Your task to perform on an android device: turn off wifi Image 0: 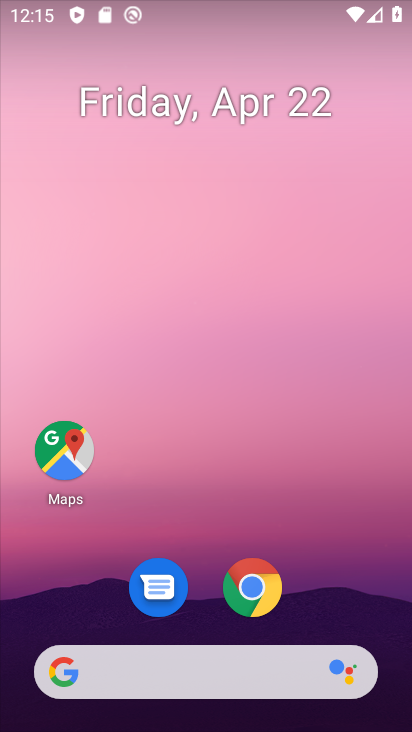
Step 0: drag from (183, 528) to (184, 390)
Your task to perform on an android device: turn off wifi Image 1: 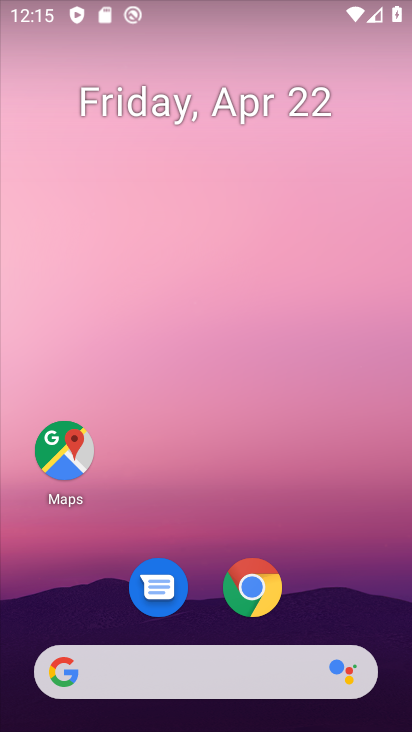
Step 1: drag from (203, 619) to (209, 381)
Your task to perform on an android device: turn off wifi Image 2: 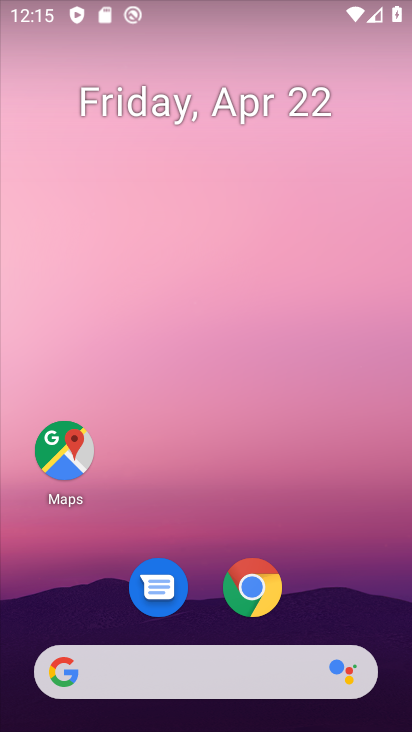
Step 2: drag from (214, 573) to (212, 231)
Your task to perform on an android device: turn off wifi Image 3: 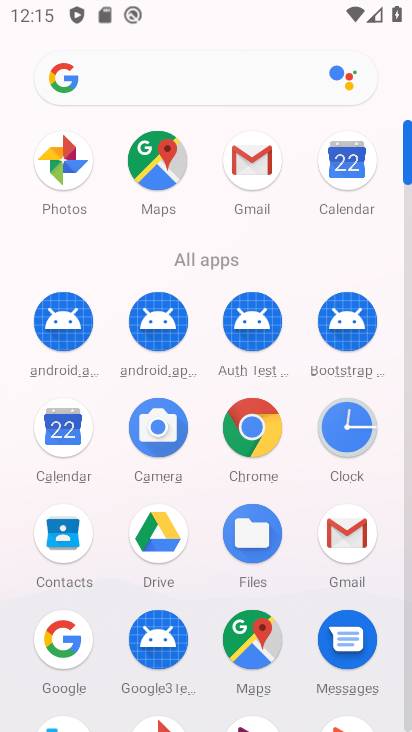
Step 3: drag from (203, 694) to (202, 396)
Your task to perform on an android device: turn off wifi Image 4: 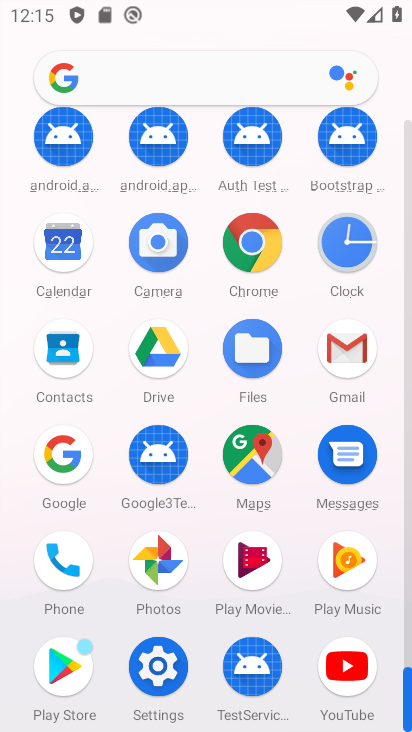
Step 4: click (146, 664)
Your task to perform on an android device: turn off wifi Image 5: 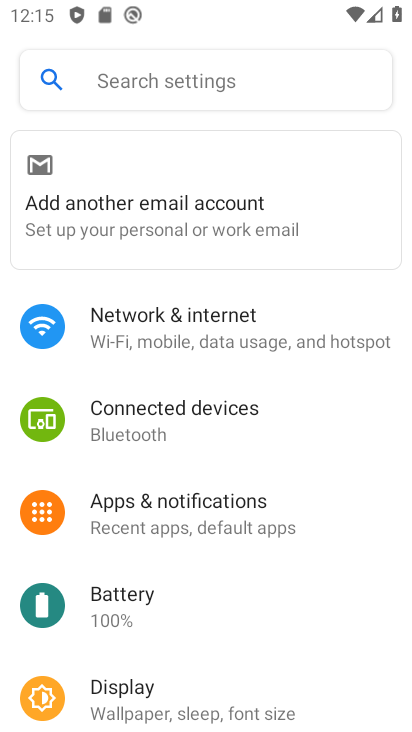
Step 5: click (185, 341)
Your task to perform on an android device: turn off wifi Image 6: 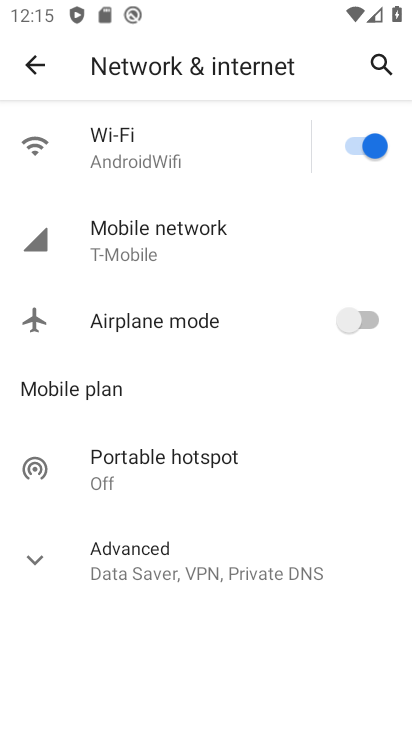
Step 6: click (360, 152)
Your task to perform on an android device: turn off wifi Image 7: 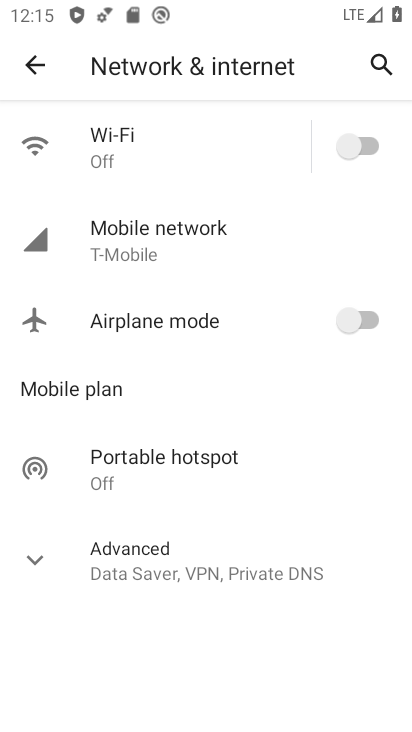
Step 7: task complete